Your task to perform on an android device: star an email in the gmail app Image 0: 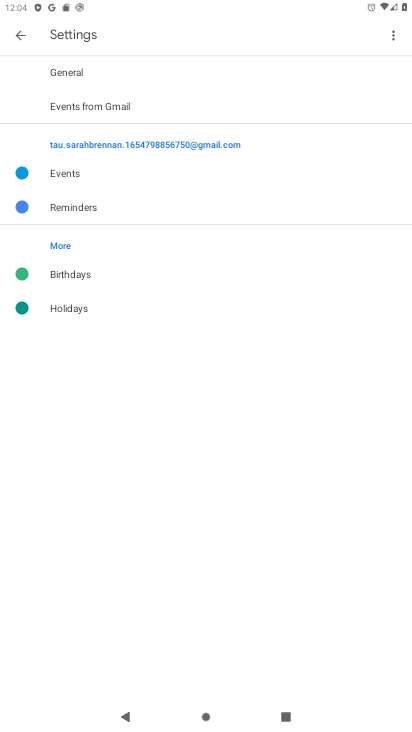
Step 0: press home button
Your task to perform on an android device: star an email in the gmail app Image 1: 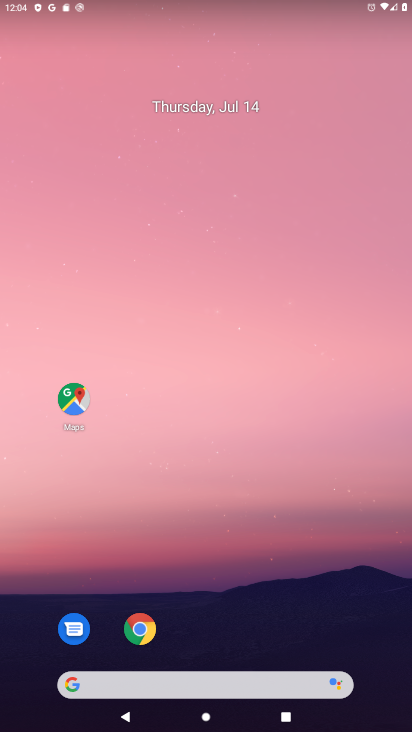
Step 1: drag from (207, 687) to (231, 238)
Your task to perform on an android device: star an email in the gmail app Image 2: 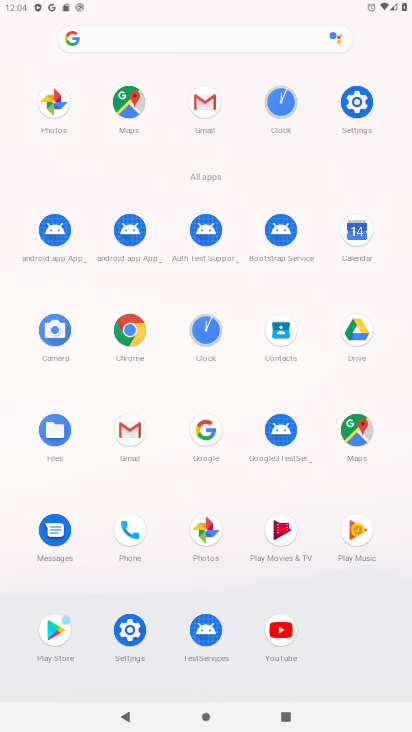
Step 2: click (205, 102)
Your task to perform on an android device: star an email in the gmail app Image 3: 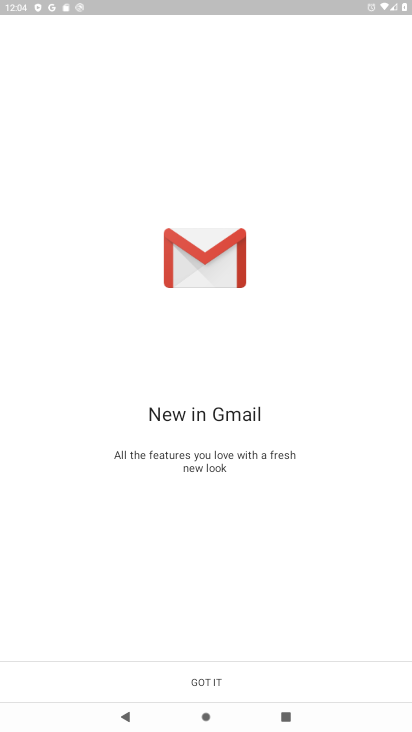
Step 3: click (209, 680)
Your task to perform on an android device: star an email in the gmail app Image 4: 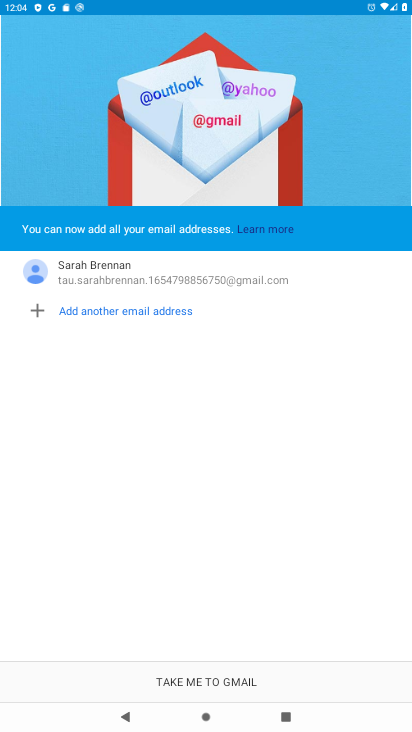
Step 4: click (209, 680)
Your task to perform on an android device: star an email in the gmail app Image 5: 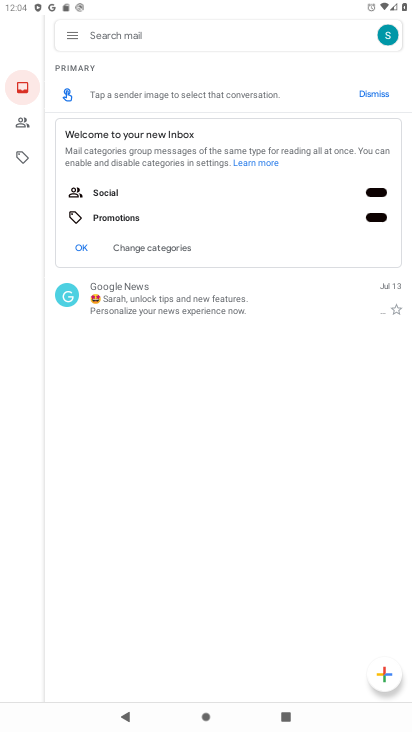
Step 5: click (397, 310)
Your task to perform on an android device: star an email in the gmail app Image 6: 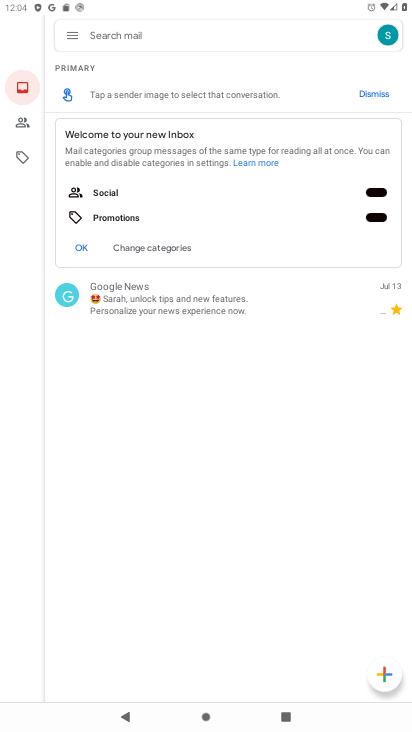
Step 6: task complete